Your task to perform on an android device: allow notifications from all sites in the chrome app Image 0: 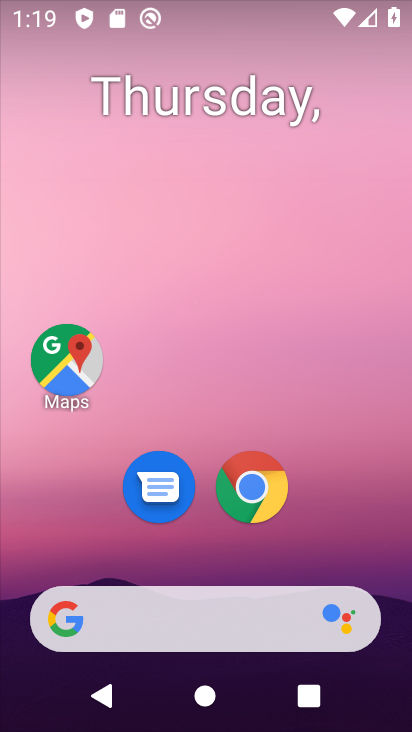
Step 0: click (268, 492)
Your task to perform on an android device: allow notifications from all sites in the chrome app Image 1: 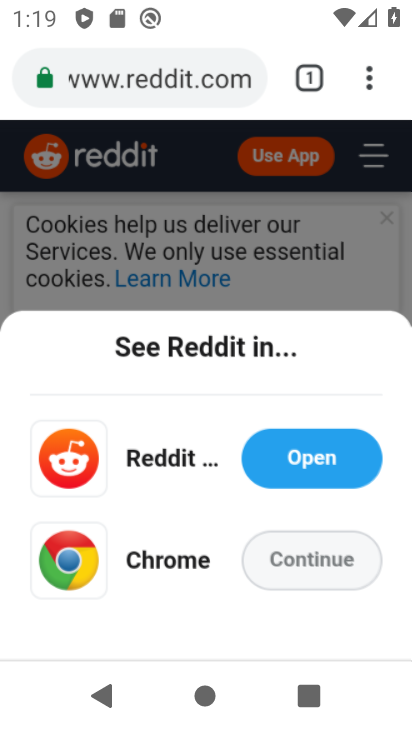
Step 1: click (355, 98)
Your task to perform on an android device: allow notifications from all sites in the chrome app Image 2: 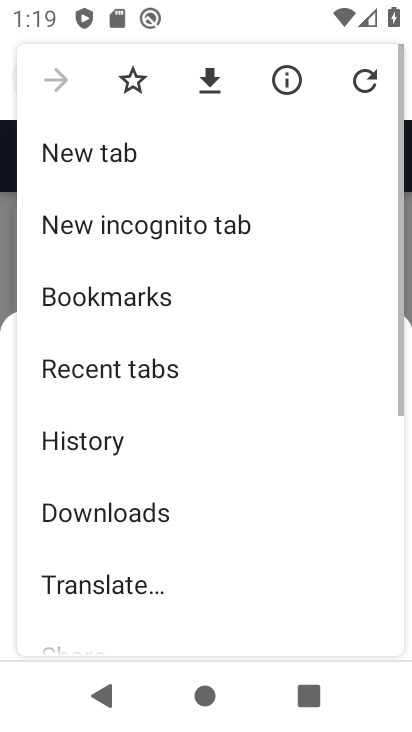
Step 2: drag from (298, 499) to (184, 88)
Your task to perform on an android device: allow notifications from all sites in the chrome app Image 3: 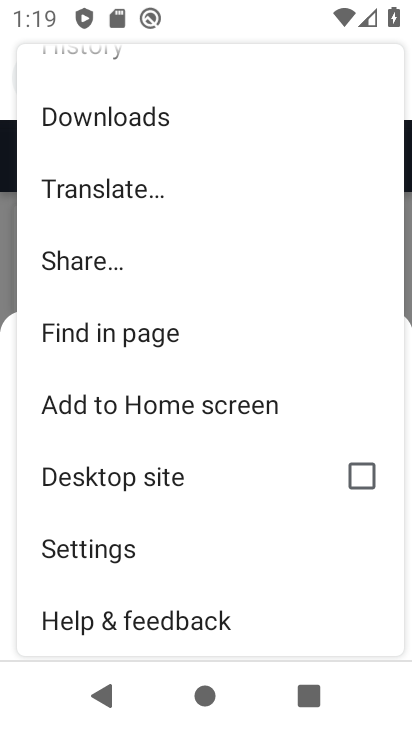
Step 3: drag from (322, 508) to (170, 64)
Your task to perform on an android device: allow notifications from all sites in the chrome app Image 4: 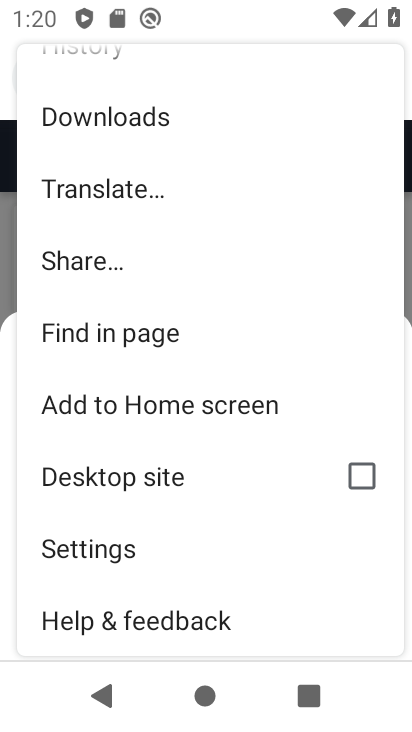
Step 4: click (144, 548)
Your task to perform on an android device: allow notifications from all sites in the chrome app Image 5: 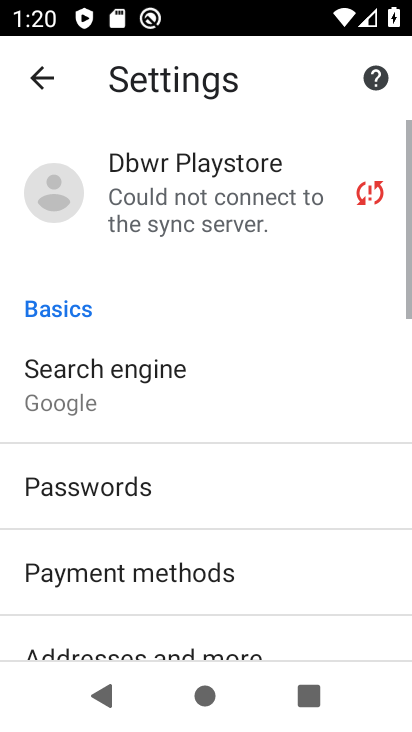
Step 5: drag from (215, 531) to (211, 58)
Your task to perform on an android device: allow notifications from all sites in the chrome app Image 6: 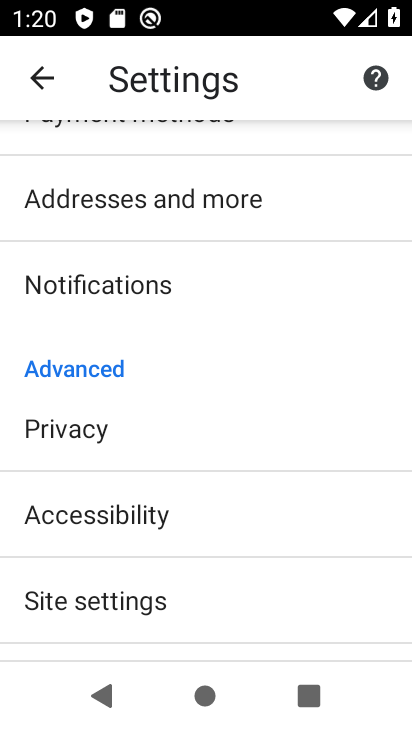
Step 6: drag from (273, 516) to (220, 136)
Your task to perform on an android device: allow notifications from all sites in the chrome app Image 7: 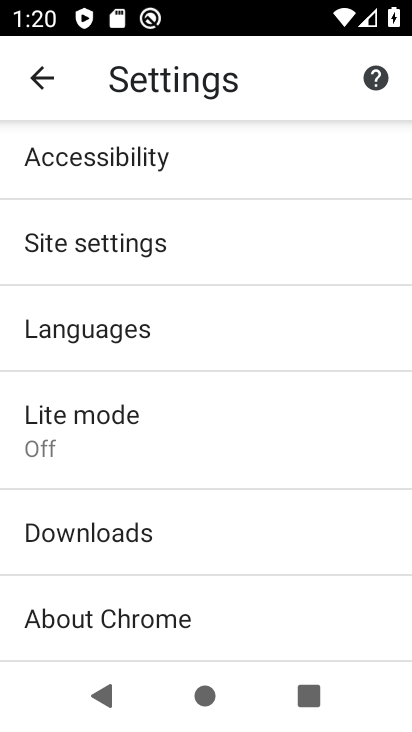
Step 7: click (145, 239)
Your task to perform on an android device: allow notifications from all sites in the chrome app Image 8: 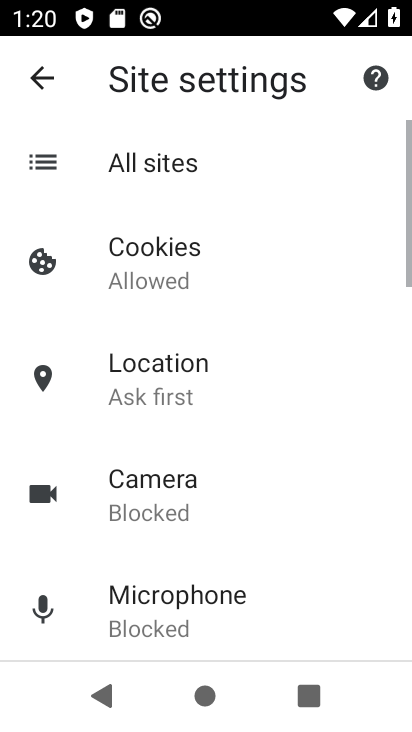
Step 8: click (244, 244)
Your task to perform on an android device: allow notifications from all sites in the chrome app Image 9: 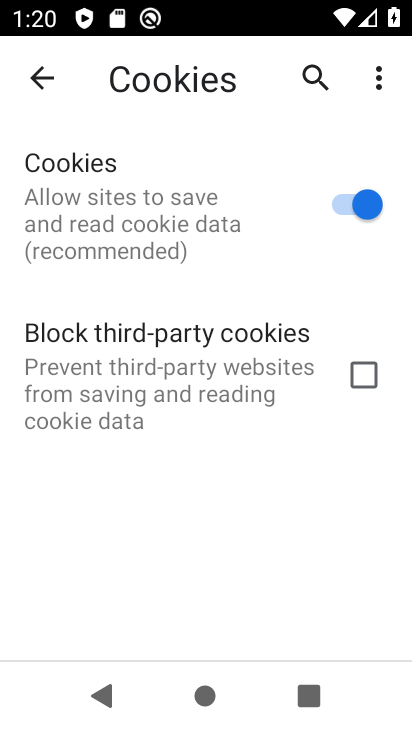
Step 9: task complete